Your task to perform on an android device: Open Google Maps Image 0: 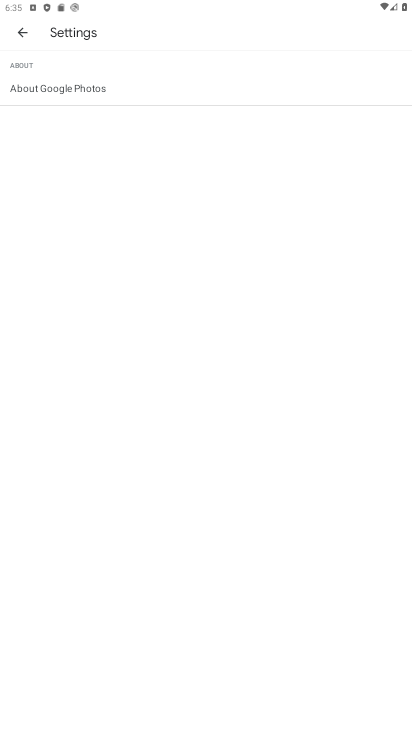
Step 0: press home button
Your task to perform on an android device: Open Google Maps Image 1: 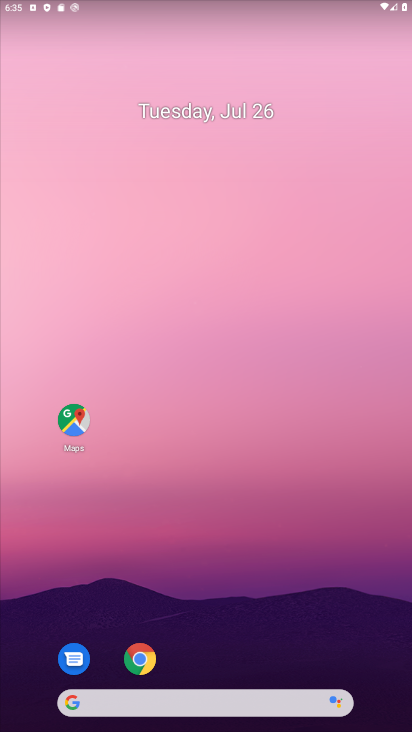
Step 1: click (62, 423)
Your task to perform on an android device: Open Google Maps Image 2: 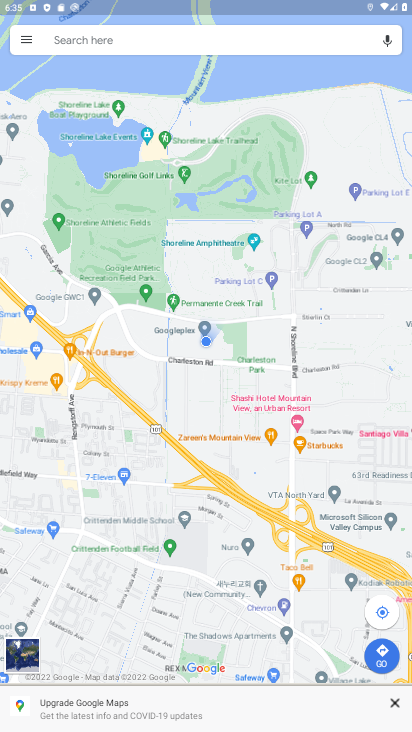
Step 2: task complete